Your task to perform on an android device: turn off location Image 0: 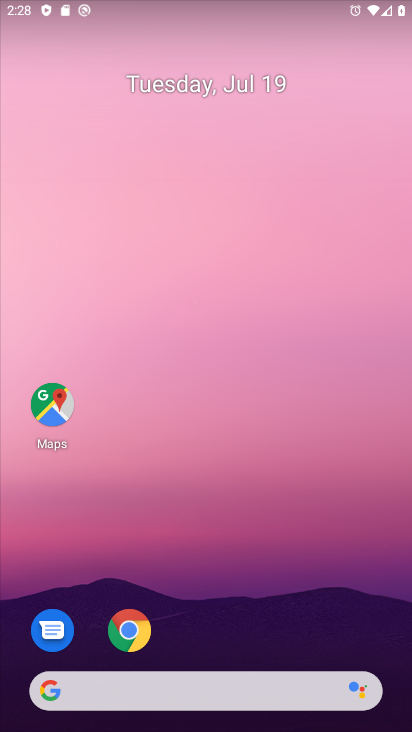
Step 0: drag from (238, 605) to (232, 67)
Your task to perform on an android device: turn off location Image 1: 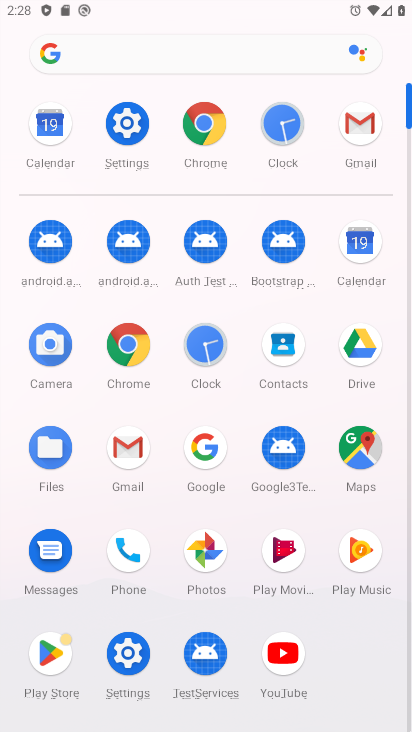
Step 1: click (129, 125)
Your task to perform on an android device: turn off location Image 2: 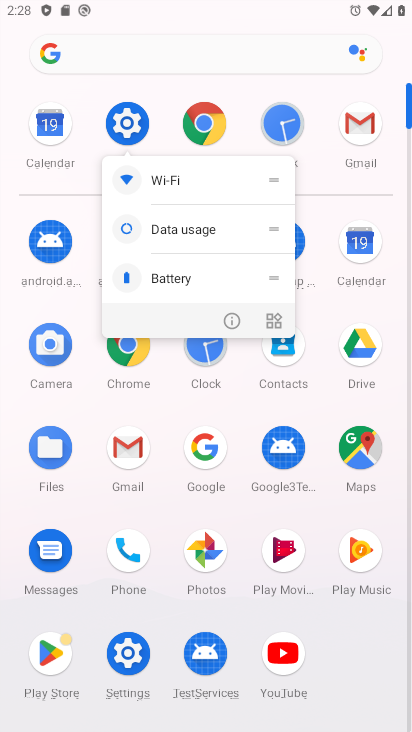
Step 2: click (129, 115)
Your task to perform on an android device: turn off location Image 3: 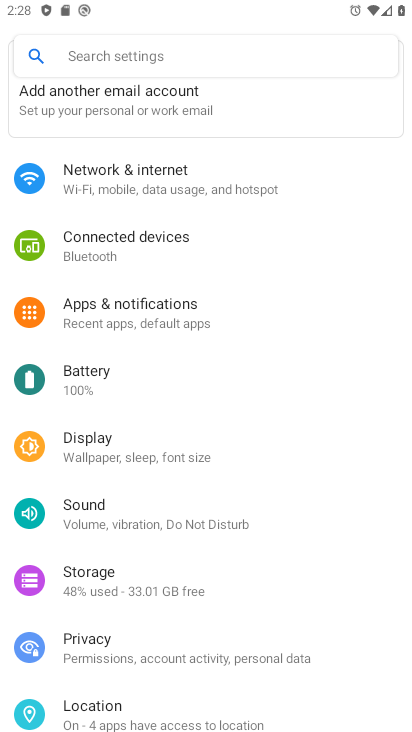
Step 3: click (189, 718)
Your task to perform on an android device: turn off location Image 4: 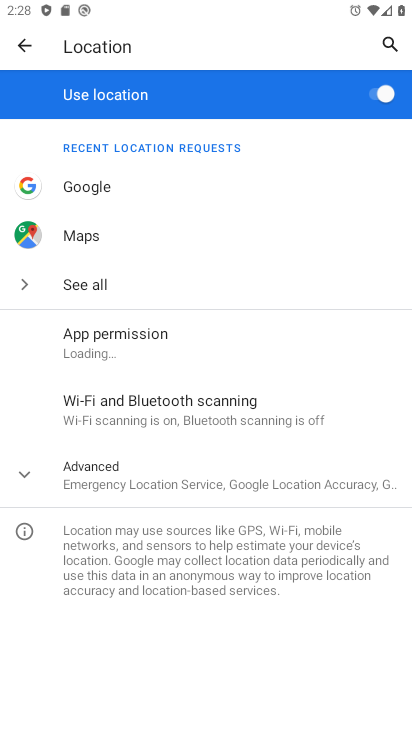
Step 4: click (388, 95)
Your task to perform on an android device: turn off location Image 5: 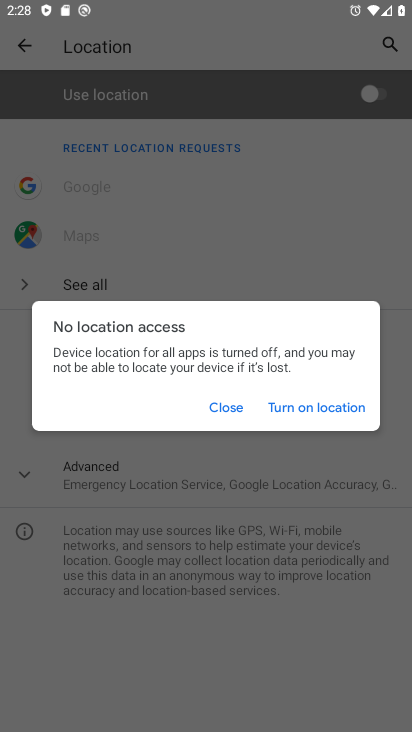
Step 5: click (228, 401)
Your task to perform on an android device: turn off location Image 6: 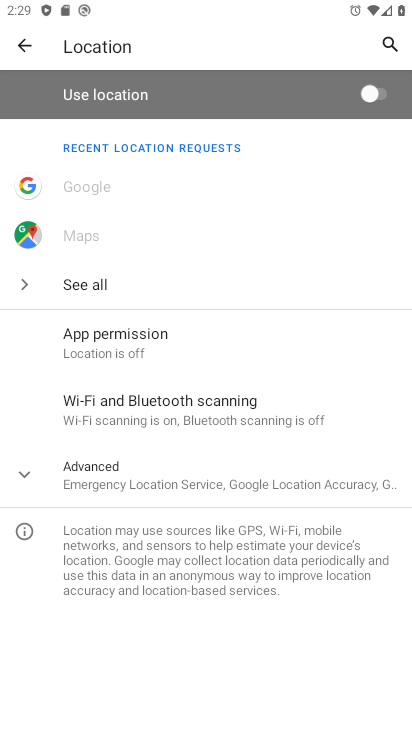
Step 6: task complete